Your task to perform on an android device: Go to battery settings Image 0: 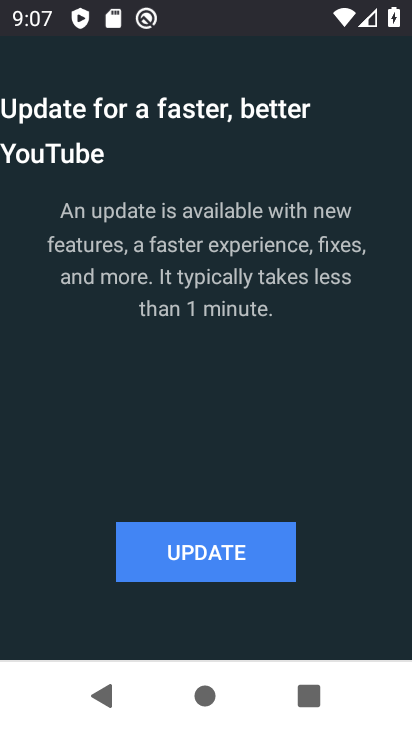
Step 0: press home button
Your task to perform on an android device: Go to battery settings Image 1: 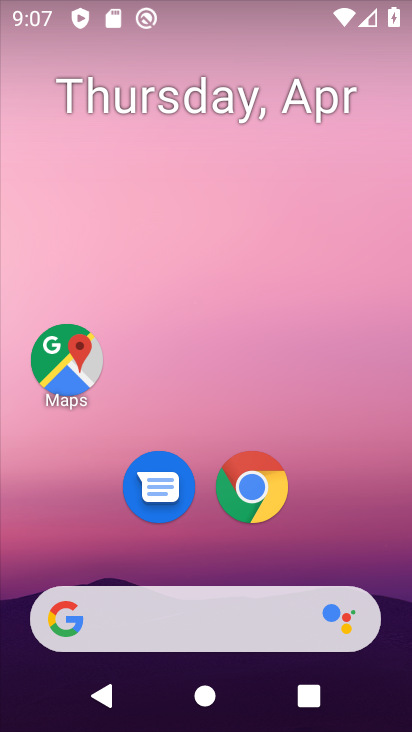
Step 1: drag from (363, 525) to (351, 130)
Your task to perform on an android device: Go to battery settings Image 2: 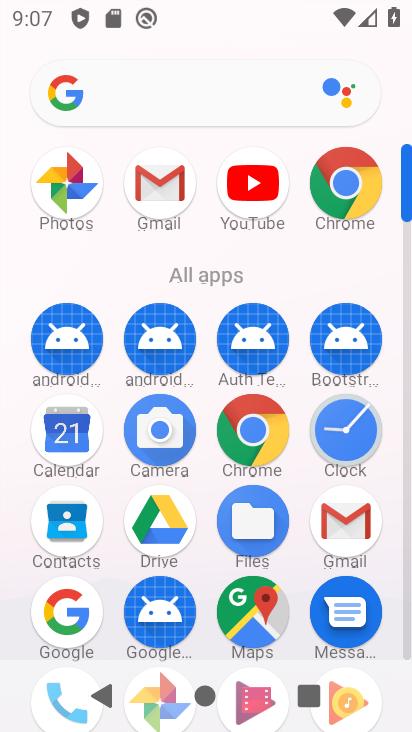
Step 2: drag from (202, 547) to (199, 214)
Your task to perform on an android device: Go to battery settings Image 3: 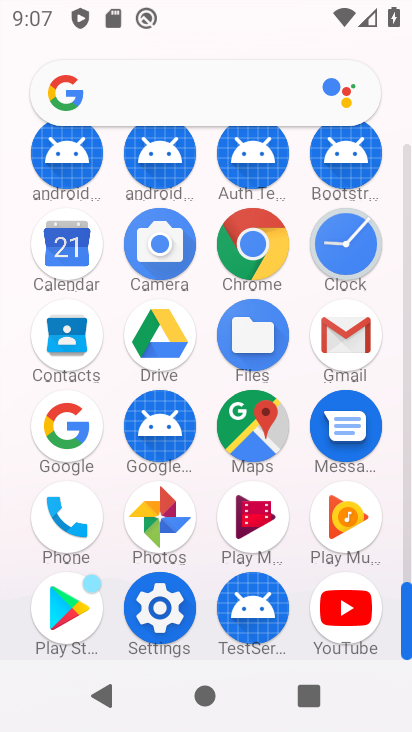
Step 3: click (166, 608)
Your task to perform on an android device: Go to battery settings Image 4: 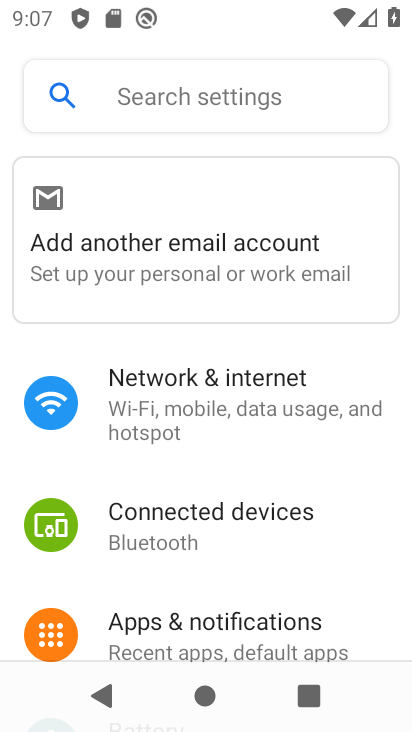
Step 4: drag from (370, 616) to (370, 371)
Your task to perform on an android device: Go to battery settings Image 5: 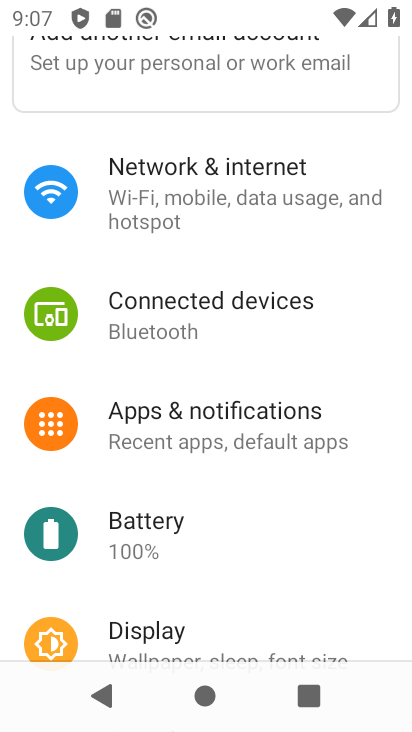
Step 5: drag from (360, 571) to (382, 355)
Your task to perform on an android device: Go to battery settings Image 6: 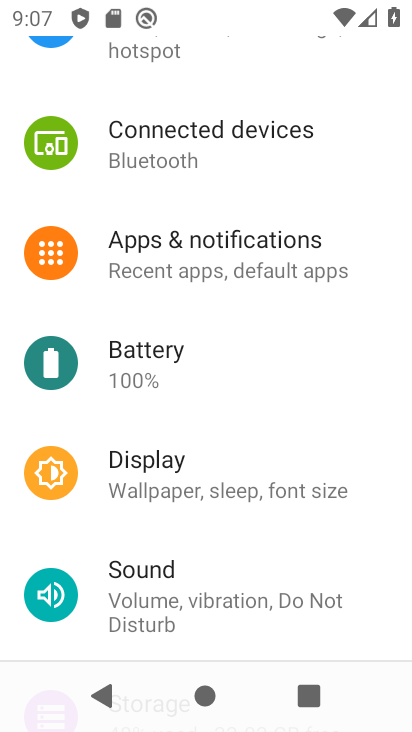
Step 6: click (150, 361)
Your task to perform on an android device: Go to battery settings Image 7: 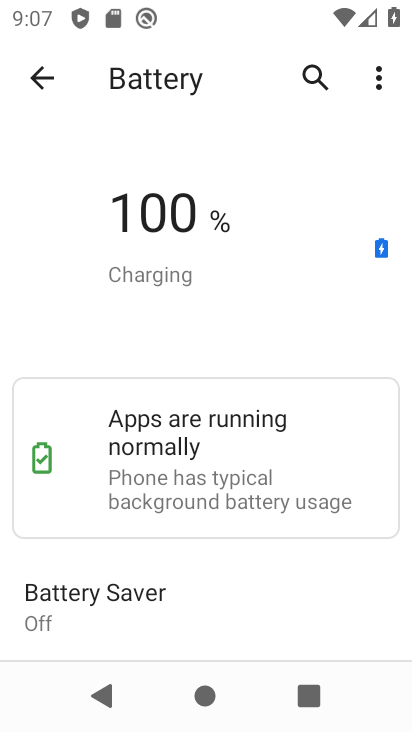
Step 7: task complete